Your task to perform on an android device: open a bookmark in the chrome app Image 0: 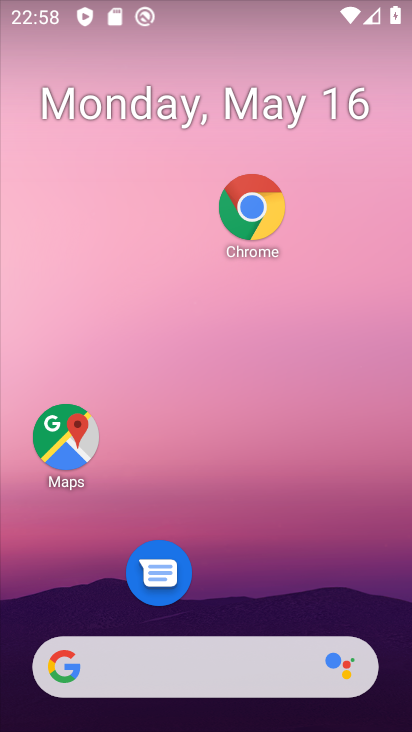
Step 0: drag from (252, 565) to (325, 74)
Your task to perform on an android device: open a bookmark in the chrome app Image 1: 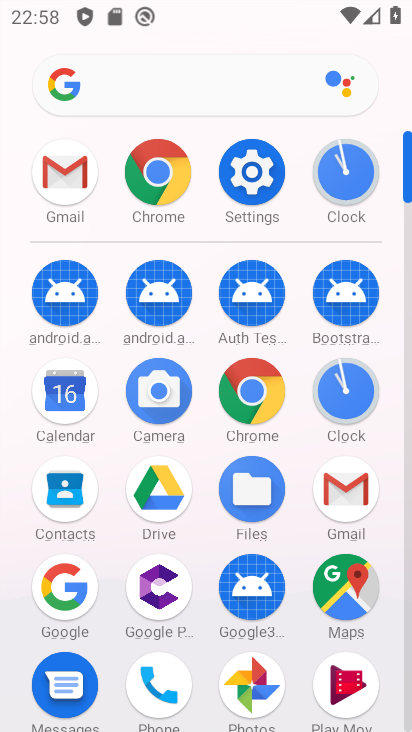
Step 1: click (242, 396)
Your task to perform on an android device: open a bookmark in the chrome app Image 2: 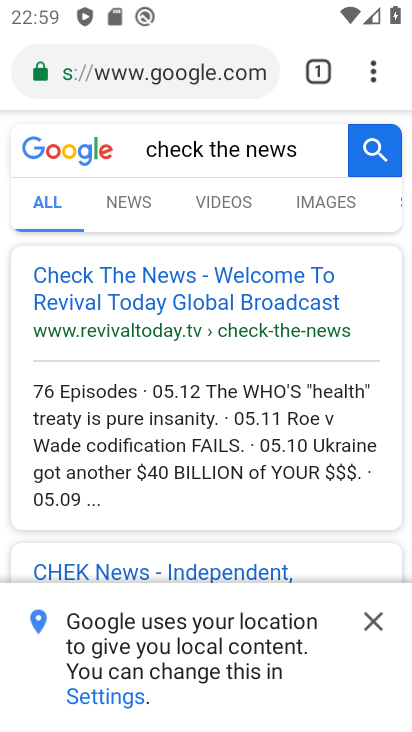
Step 2: click (376, 71)
Your task to perform on an android device: open a bookmark in the chrome app Image 3: 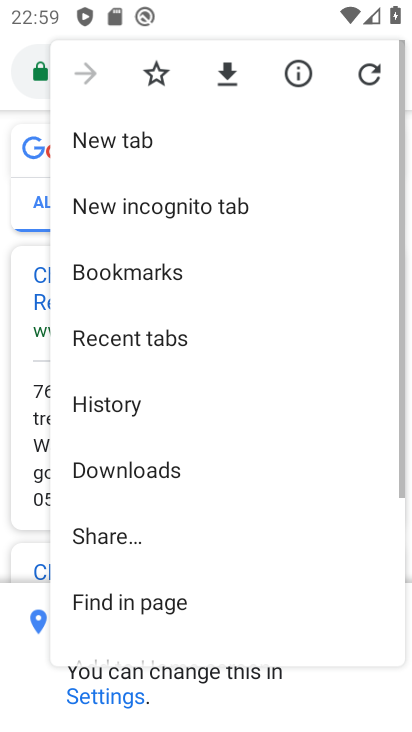
Step 3: click (157, 254)
Your task to perform on an android device: open a bookmark in the chrome app Image 4: 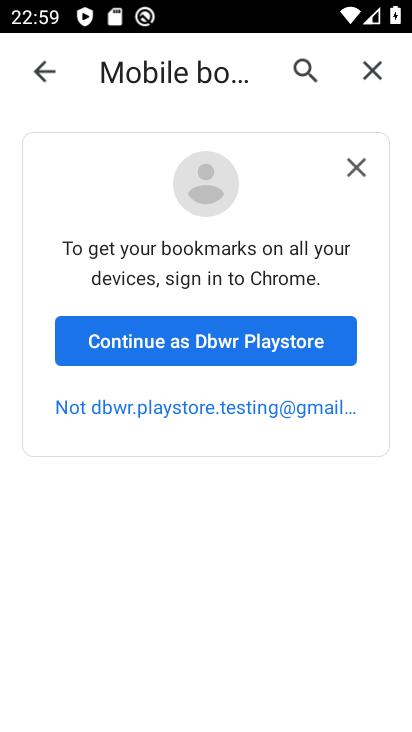
Step 4: task complete